Your task to perform on an android device: open sync settings in chrome Image 0: 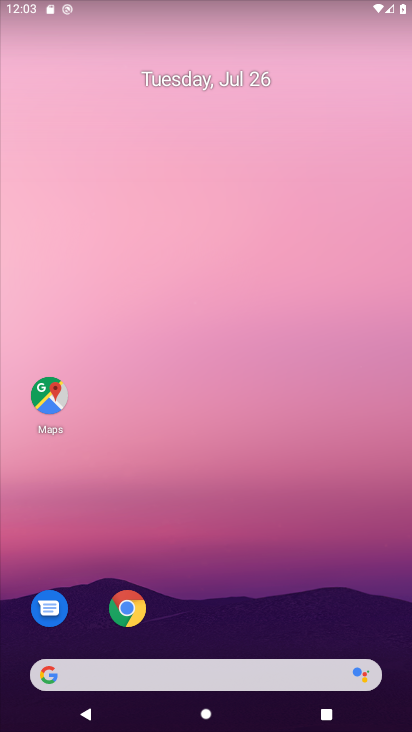
Step 0: drag from (247, 640) to (247, 57)
Your task to perform on an android device: open sync settings in chrome Image 1: 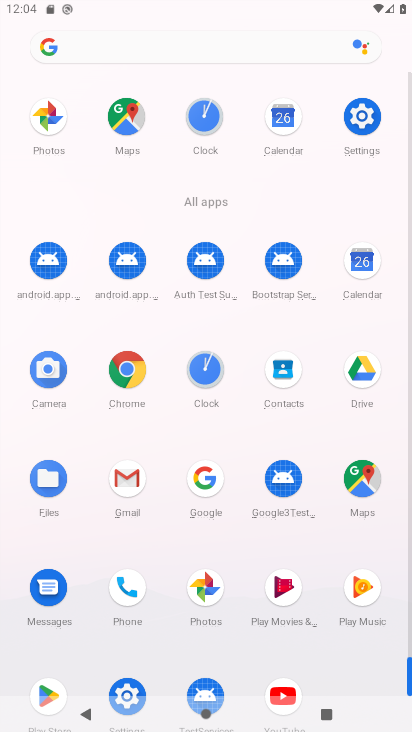
Step 1: click (132, 385)
Your task to perform on an android device: open sync settings in chrome Image 2: 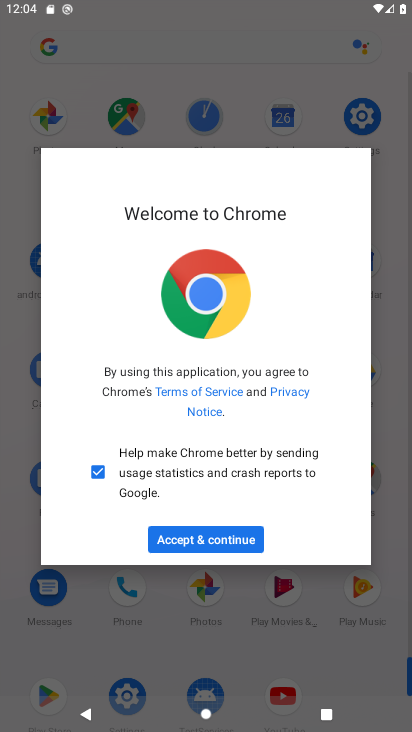
Step 2: click (222, 543)
Your task to perform on an android device: open sync settings in chrome Image 3: 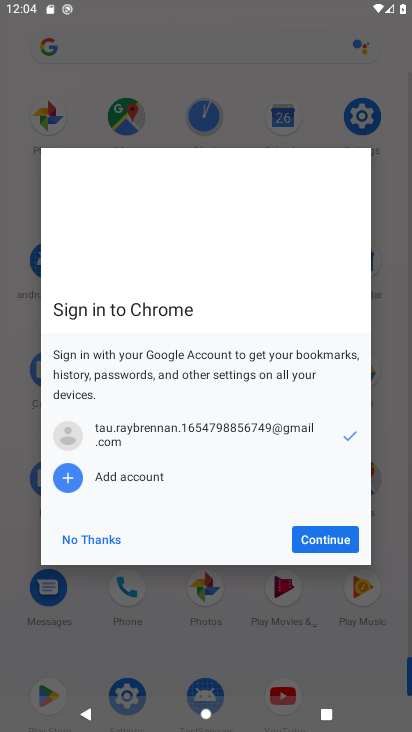
Step 3: click (318, 541)
Your task to perform on an android device: open sync settings in chrome Image 4: 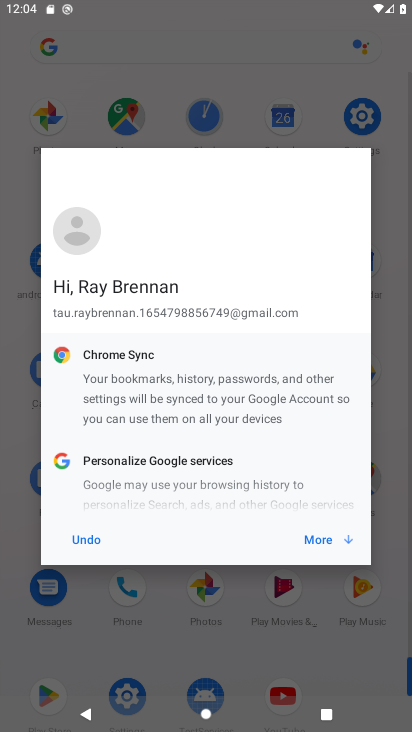
Step 4: click (329, 538)
Your task to perform on an android device: open sync settings in chrome Image 5: 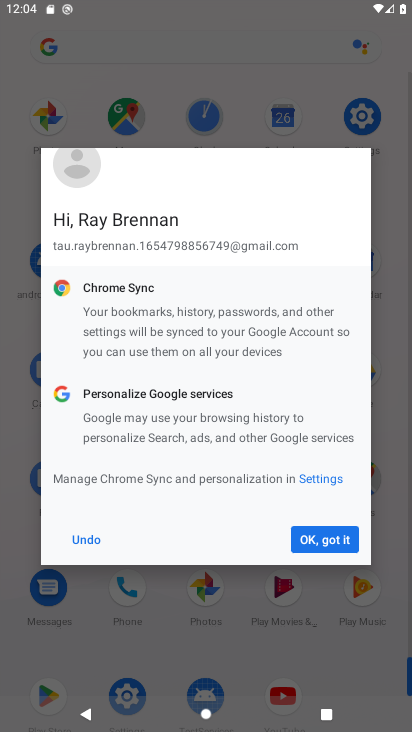
Step 5: click (329, 540)
Your task to perform on an android device: open sync settings in chrome Image 6: 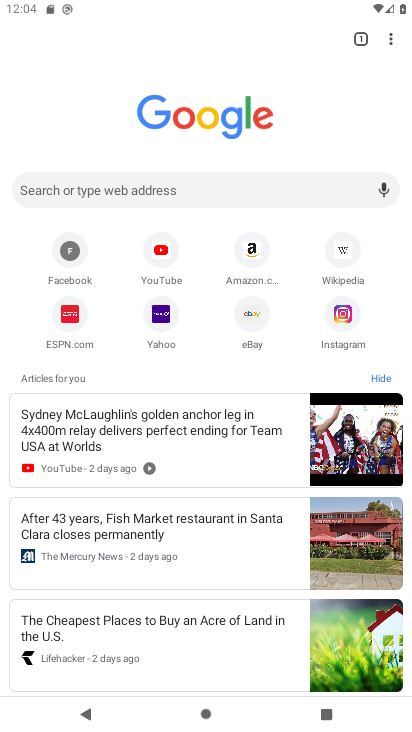
Step 6: click (396, 35)
Your task to perform on an android device: open sync settings in chrome Image 7: 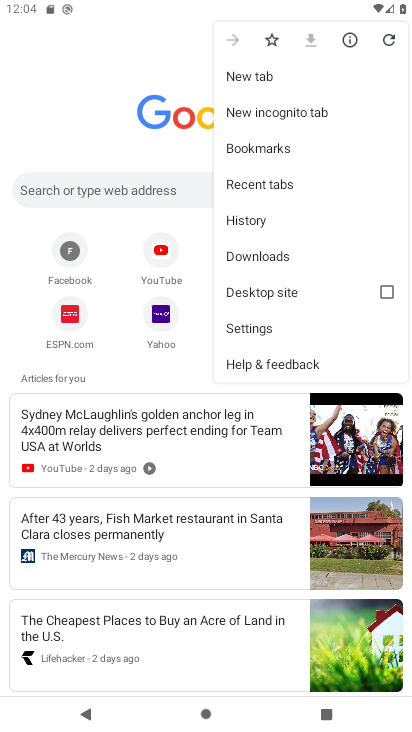
Step 7: click (255, 330)
Your task to perform on an android device: open sync settings in chrome Image 8: 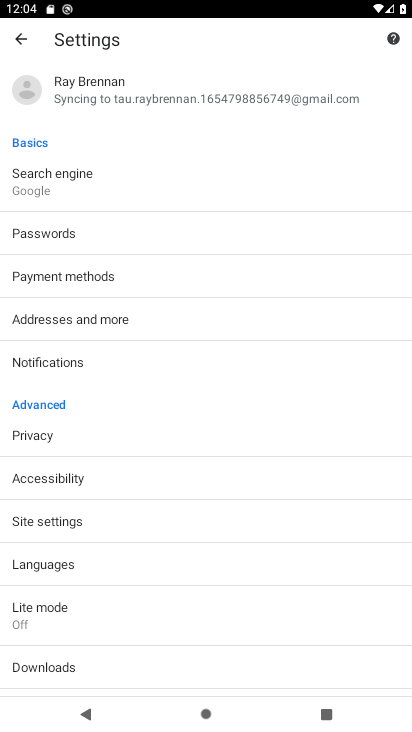
Step 8: click (177, 99)
Your task to perform on an android device: open sync settings in chrome Image 9: 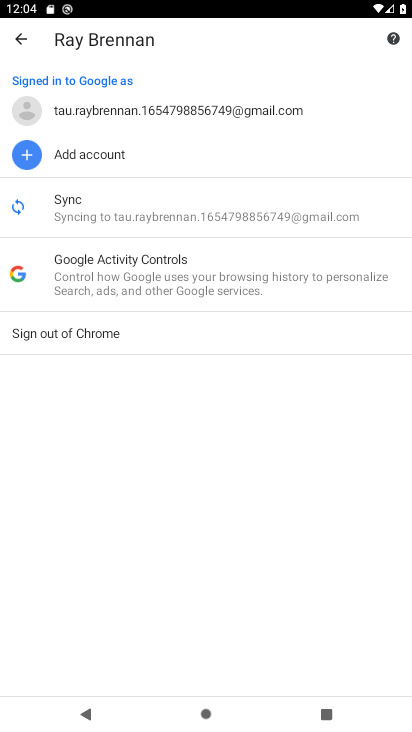
Step 9: click (169, 216)
Your task to perform on an android device: open sync settings in chrome Image 10: 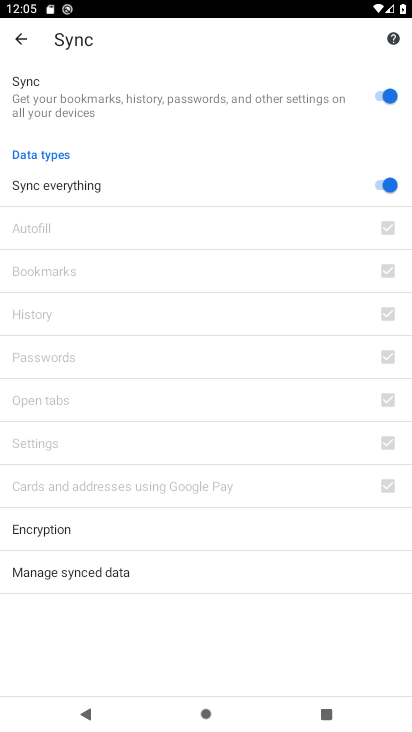
Step 10: task complete